Your task to perform on an android device: Open CNN.com Image 0: 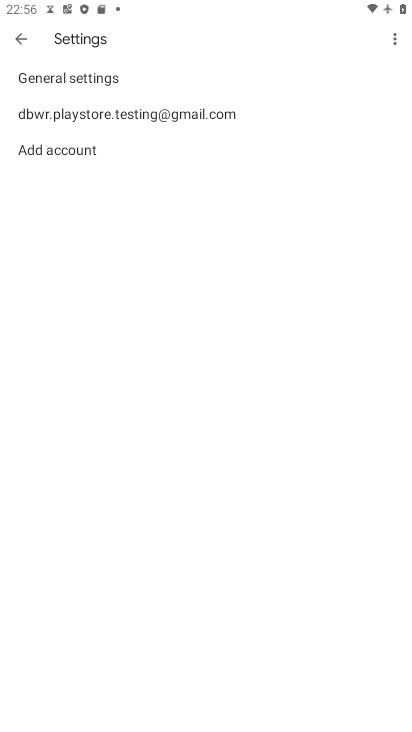
Step 0: press home button
Your task to perform on an android device: Open CNN.com Image 1: 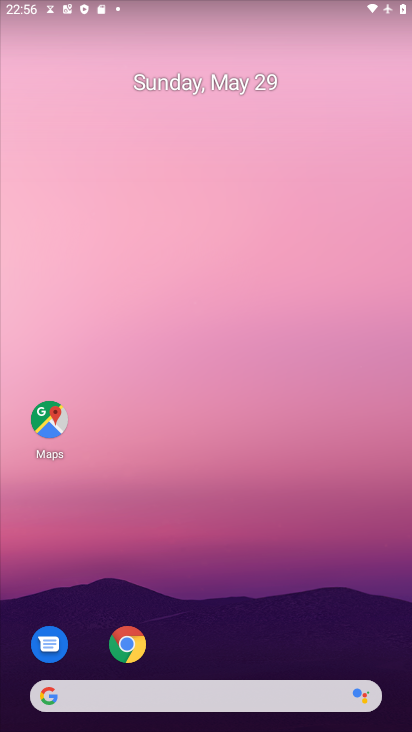
Step 1: drag from (254, 634) to (233, 284)
Your task to perform on an android device: Open CNN.com Image 2: 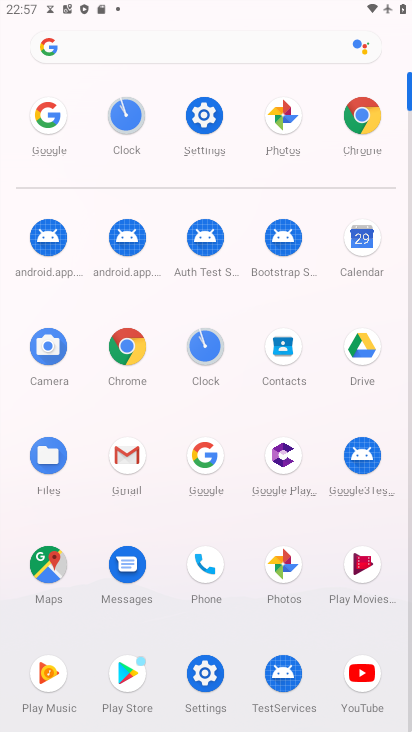
Step 2: click (363, 113)
Your task to perform on an android device: Open CNN.com Image 3: 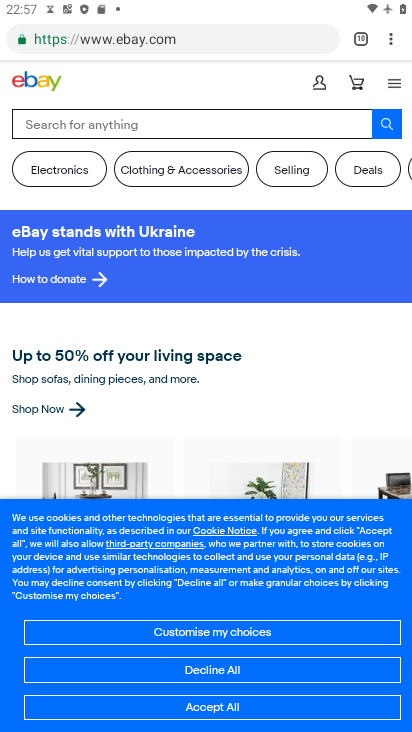
Step 3: click (384, 32)
Your task to perform on an android device: Open CNN.com Image 4: 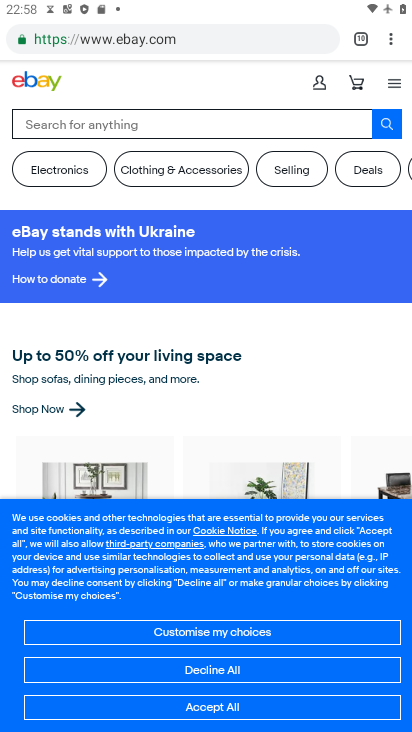
Step 4: click (394, 34)
Your task to perform on an android device: Open CNN.com Image 5: 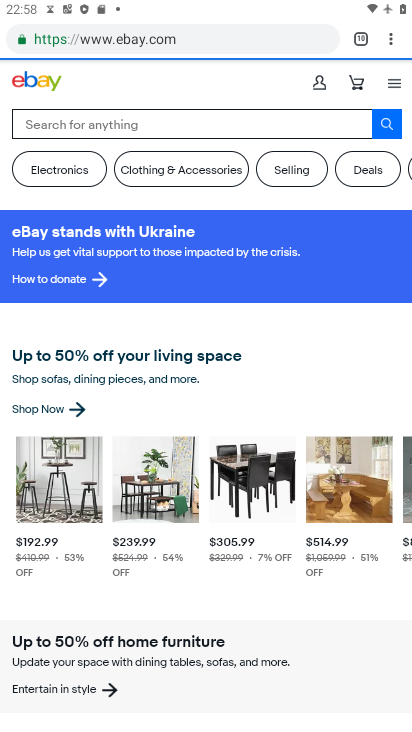
Step 5: click (393, 45)
Your task to perform on an android device: Open CNN.com Image 6: 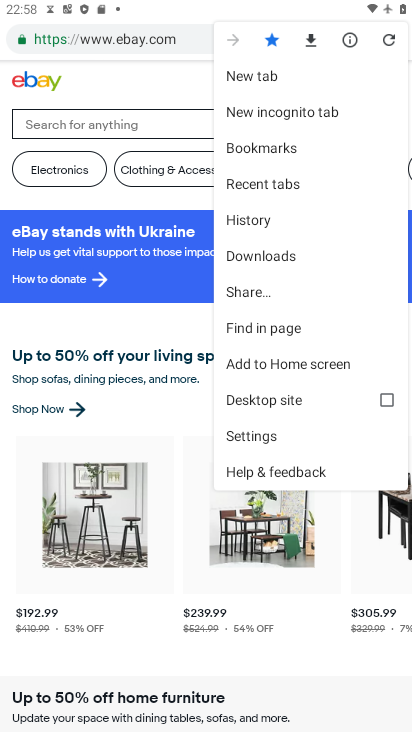
Step 6: click (243, 79)
Your task to perform on an android device: Open CNN.com Image 7: 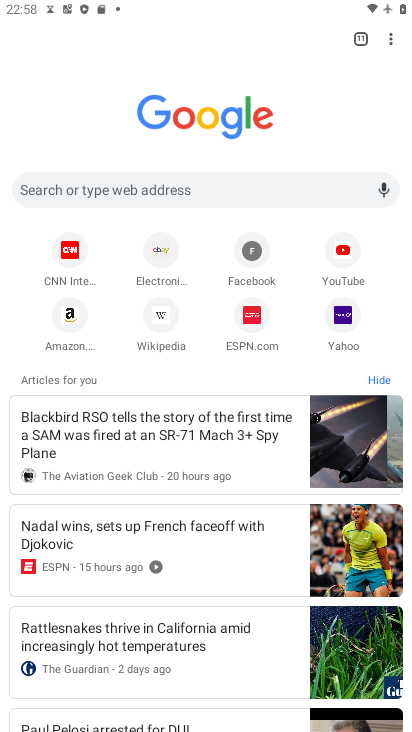
Step 7: click (94, 184)
Your task to perform on an android device: Open CNN.com Image 8: 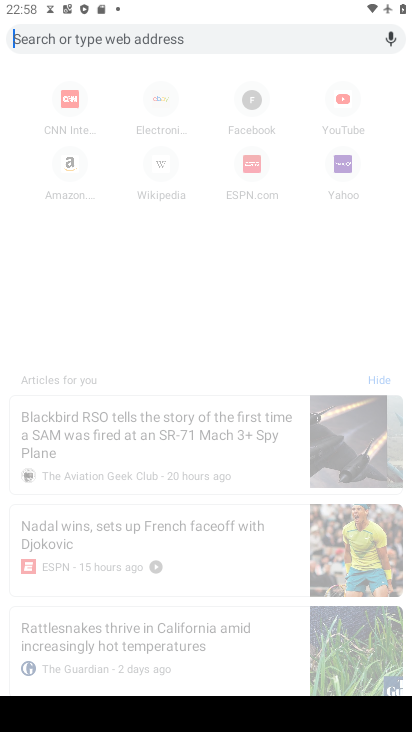
Step 8: click (71, 106)
Your task to perform on an android device: Open CNN.com Image 9: 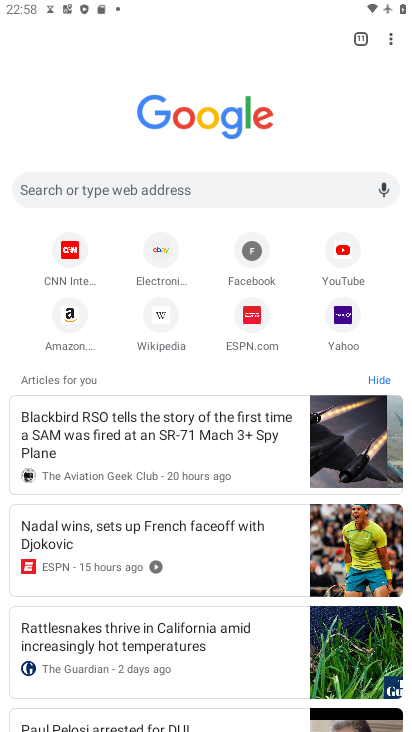
Step 9: click (72, 246)
Your task to perform on an android device: Open CNN.com Image 10: 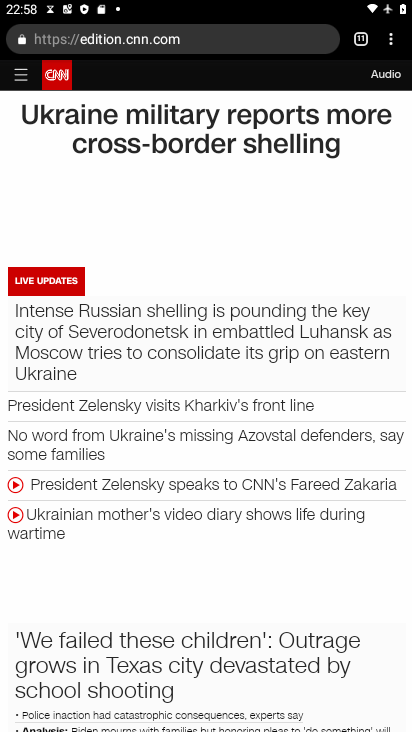
Step 10: task complete